Your task to perform on an android device: show emergency info Image 0: 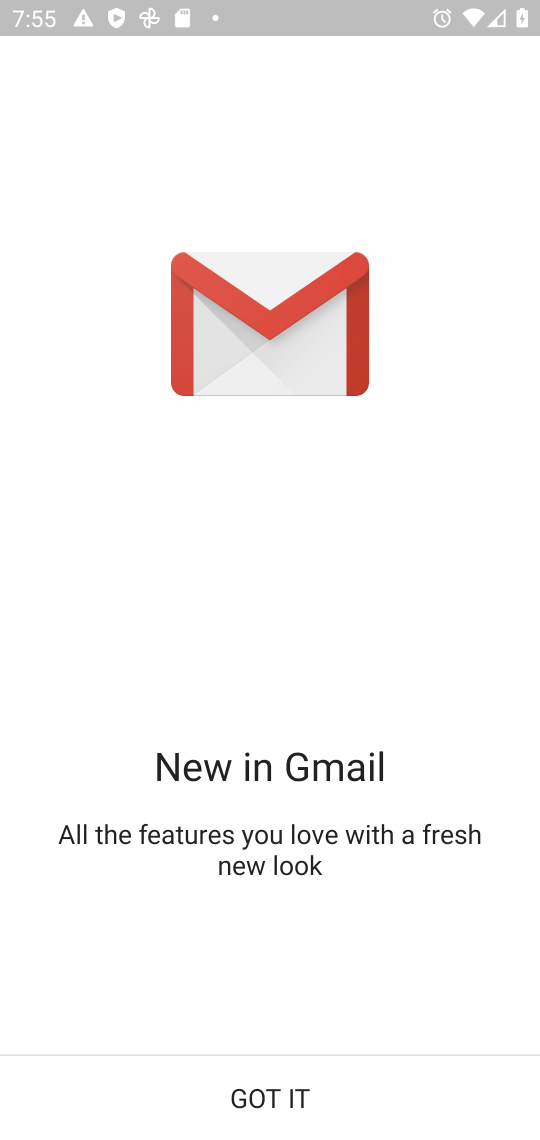
Step 0: press home button
Your task to perform on an android device: show emergency info Image 1: 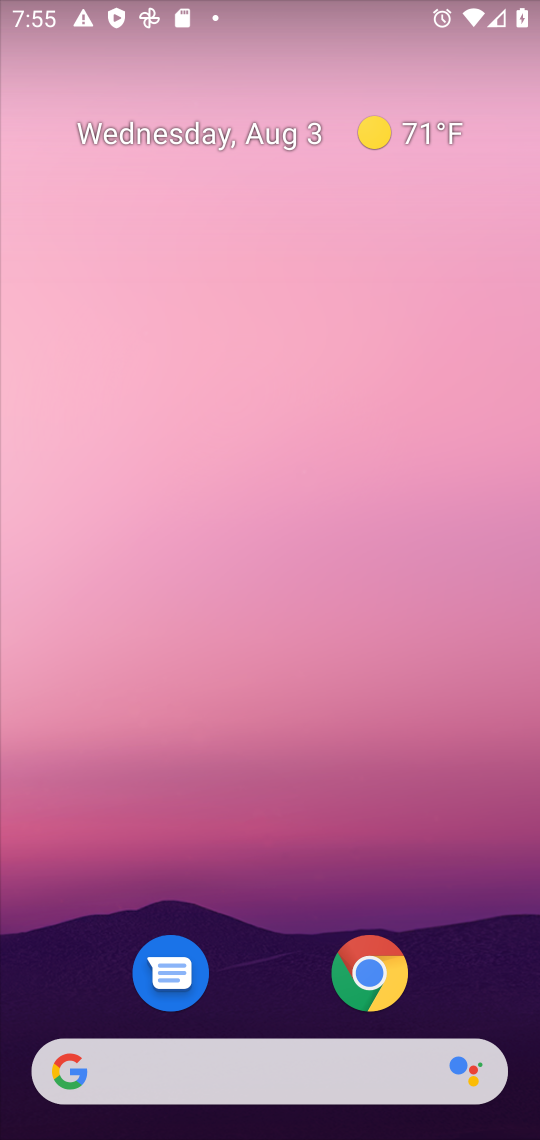
Step 1: drag from (230, 970) to (178, 92)
Your task to perform on an android device: show emergency info Image 2: 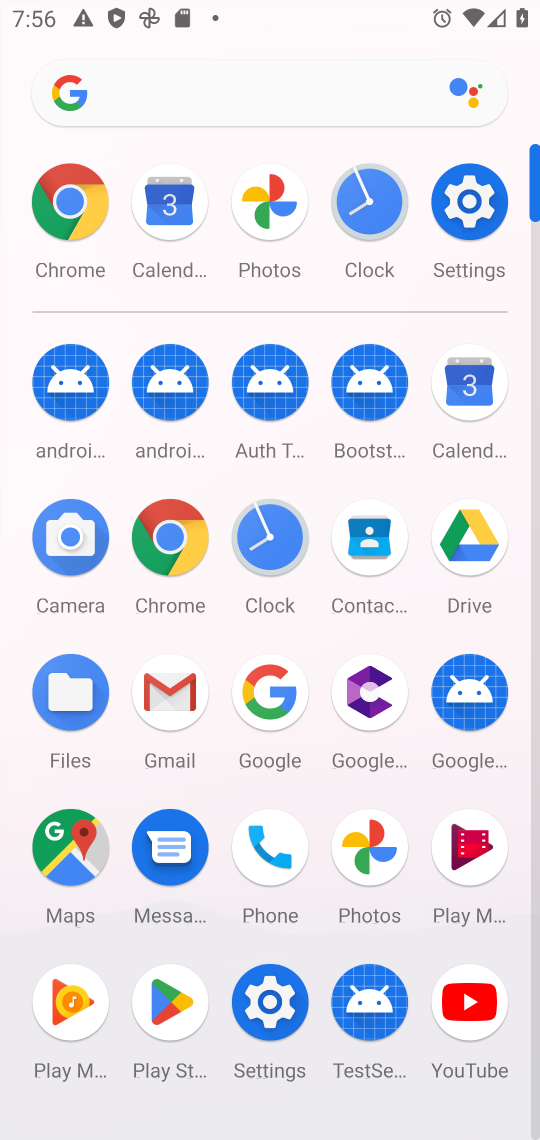
Step 2: click (478, 204)
Your task to perform on an android device: show emergency info Image 3: 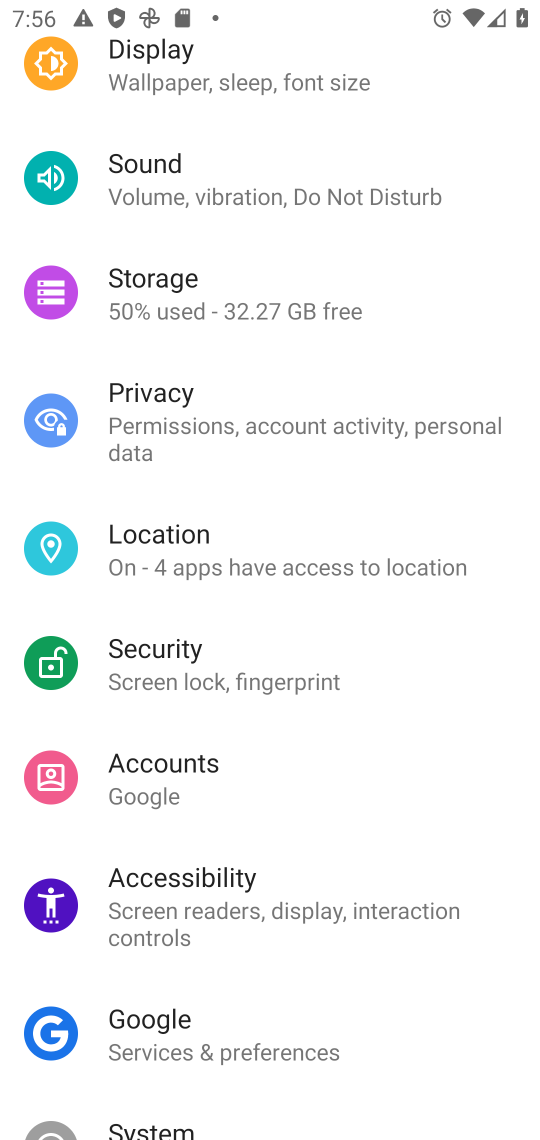
Step 3: drag from (233, 979) to (170, 314)
Your task to perform on an android device: show emergency info Image 4: 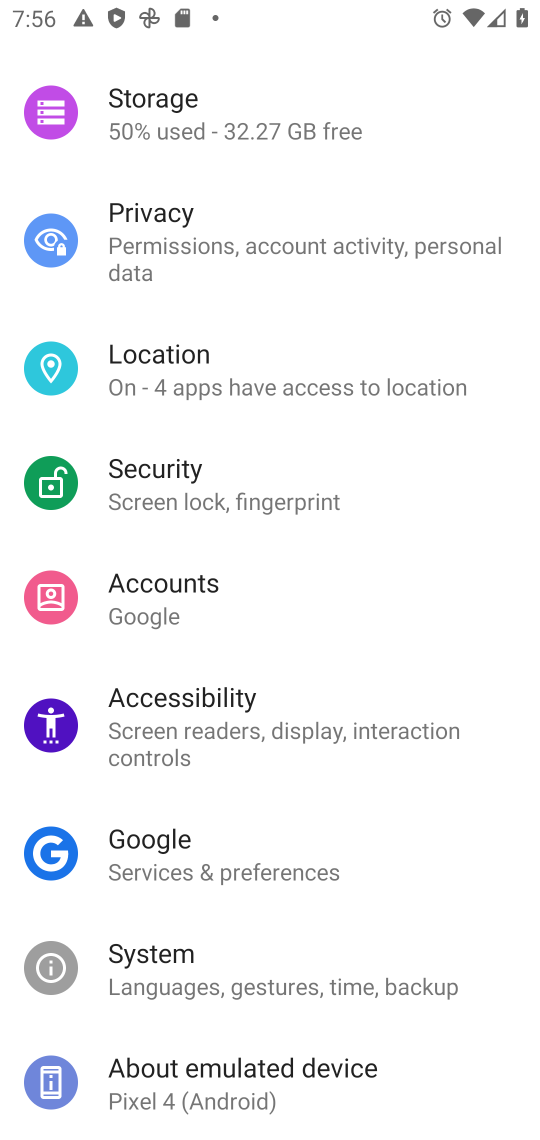
Step 4: click (342, 1091)
Your task to perform on an android device: show emergency info Image 5: 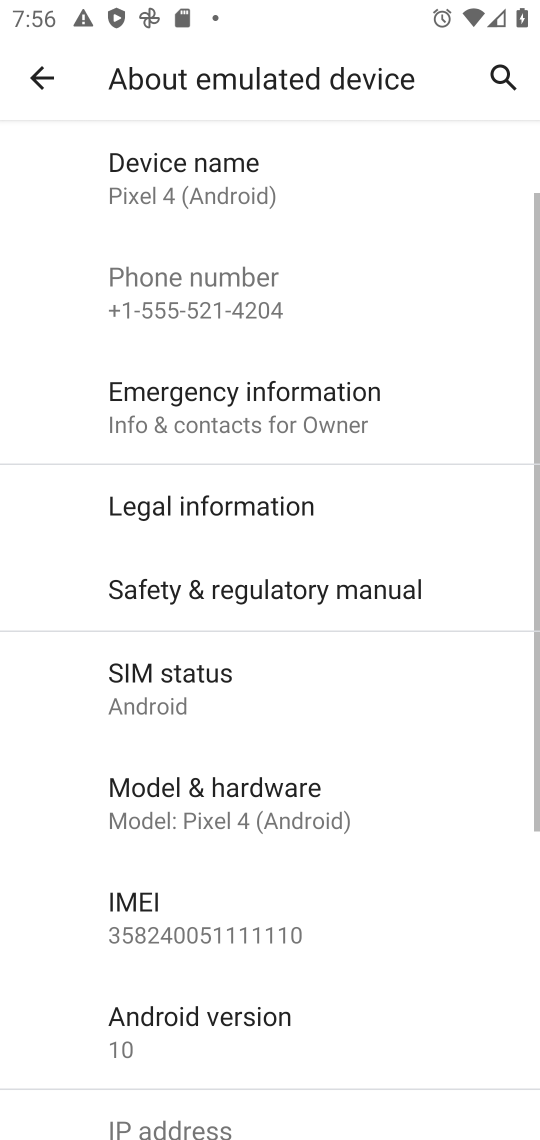
Step 5: click (238, 407)
Your task to perform on an android device: show emergency info Image 6: 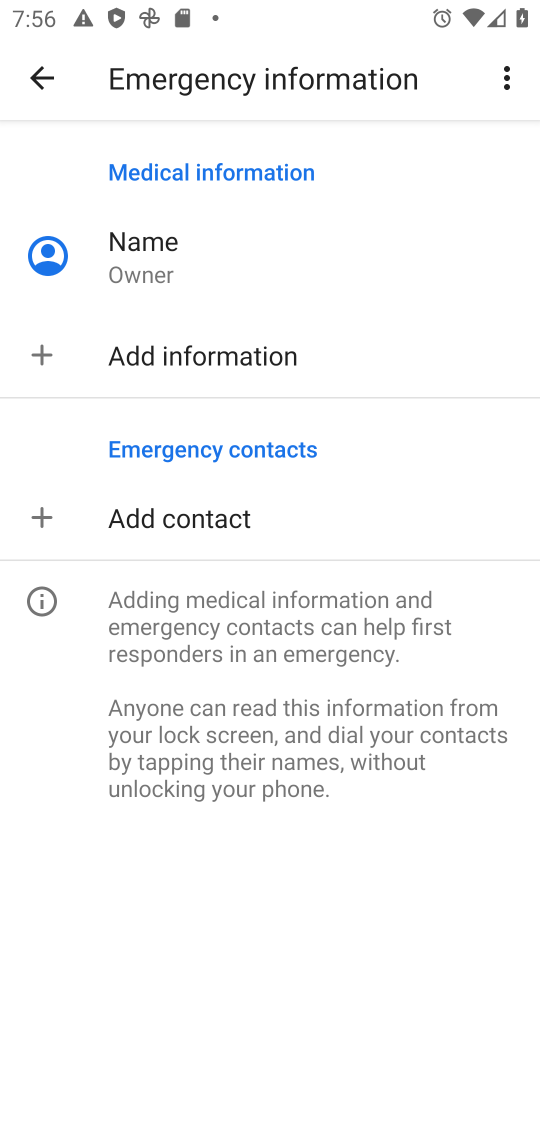
Step 6: task complete